Your task to perform on an android device: Turn off the flashlight Image 0: 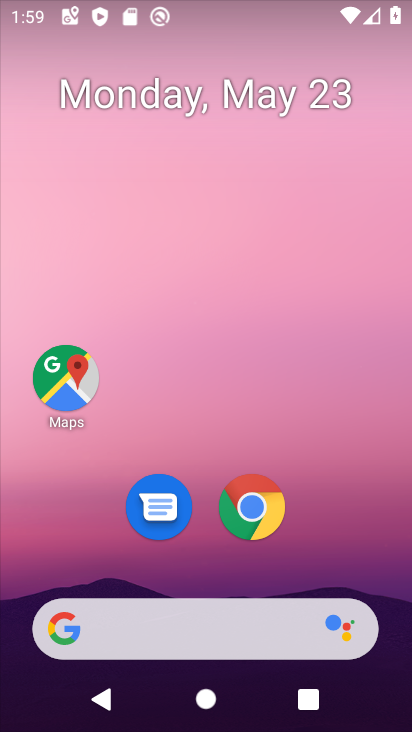
Step 0: drag from (249, 720) to (248, 211)
Your task to perform on an android device: Turn off the flashlight Image 1: 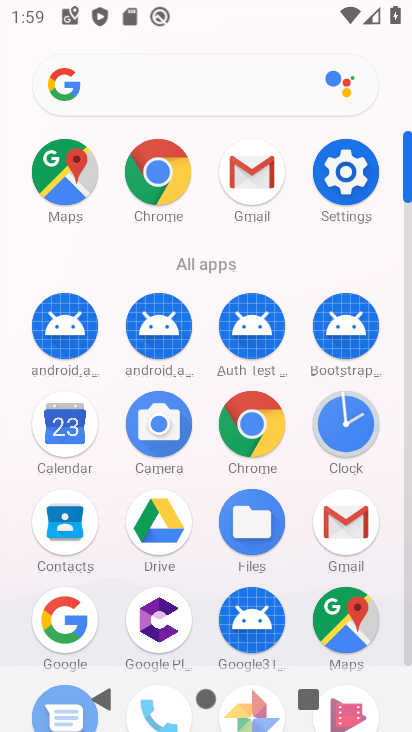
Step 1: click (342, 176)
Your task to perform on an android device: Turn off the flashlight Image 2: 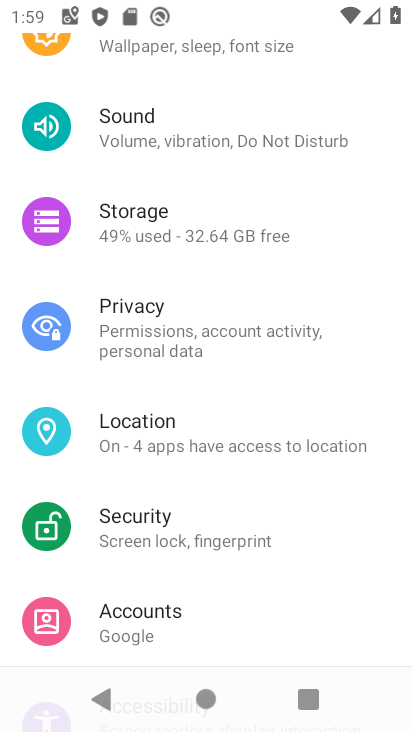
Step 2: task complete